Your task to perform on an android device: Check the weather Image 0: 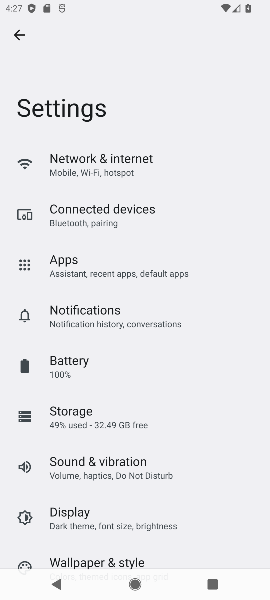
Step 0: press home button
Your task to perform on an android device: Check the weather Image 1: 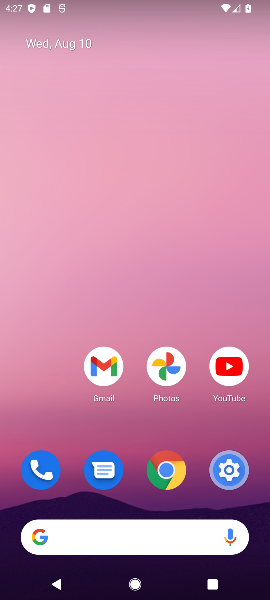
Step 1: drag from (191, 437) to (142, 19)
Your task to perform on an android device: Check the weather Image 2: 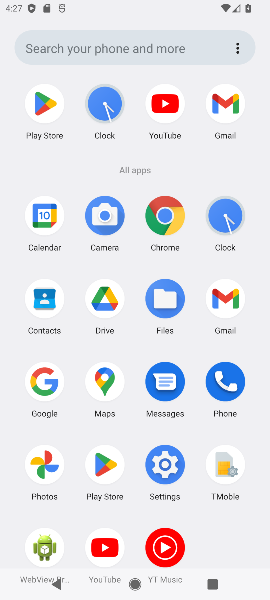
Step 2: click (156, 208)
Your task to perform on an android device: Check the weather Image 3: 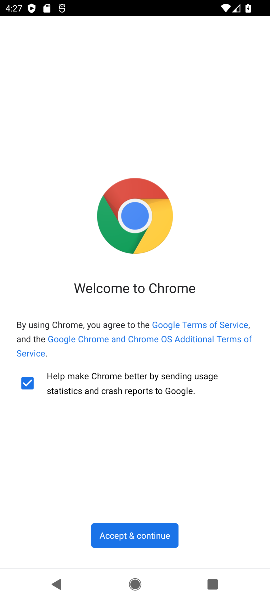
Step 3: click (143, 540)
Your task to perform on an android device: Check the weather Image 4: 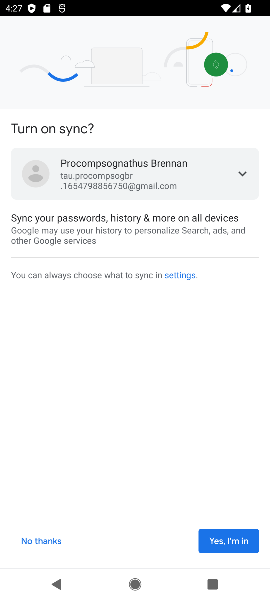
Step 4: click (222, 542)
Your task to perform on an android device: Check the weather Image 5: 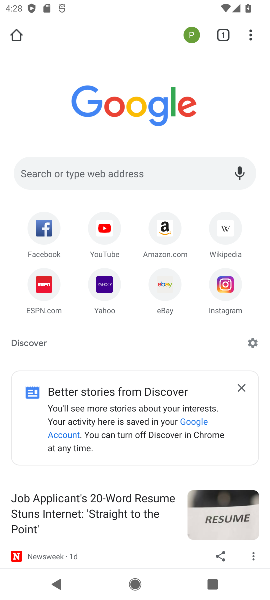
Step 5: click (98, 170)
Your task to perform on an android device: Check the weather Image 6: 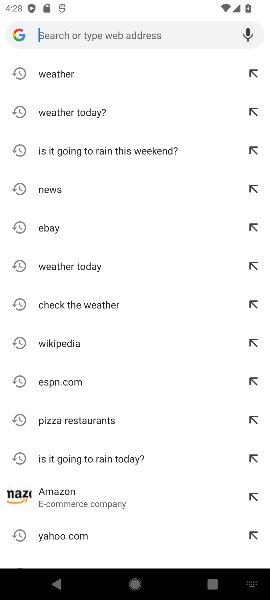
Step 6: click (36, 75)
Your task to perform on an android device: Check the weather Image 7: 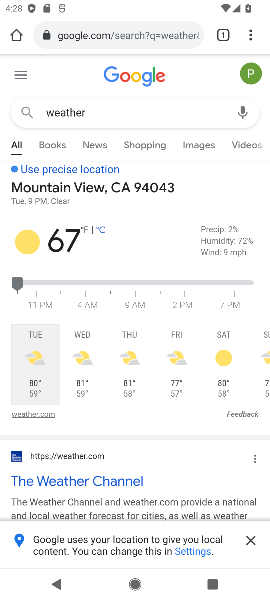
Step 7: task complete